Your task to perform on an android device: Search for seafood restaurants on Google Maps Image 0: 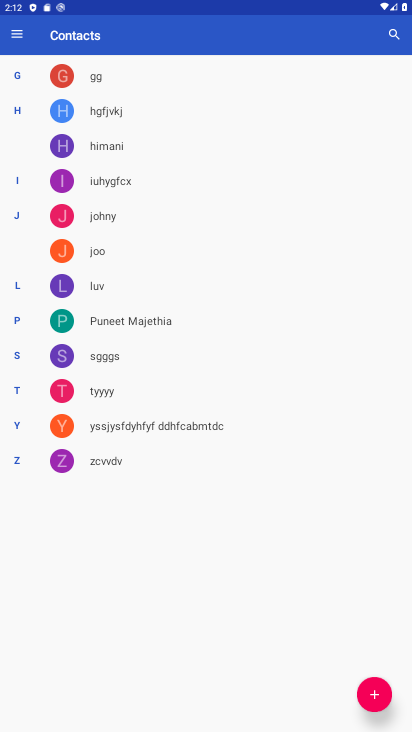
Step 0: press home button
Your task to perform on an android device: Search for seafood restaurants on Google Maps Image 1: 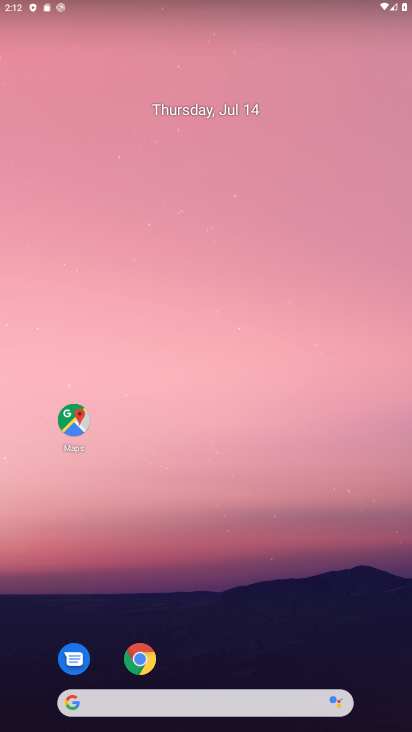
Step 1: click (67, 430)
Your task to perform on an android device: Search for seafood restaurants on Google Maps Image 2: 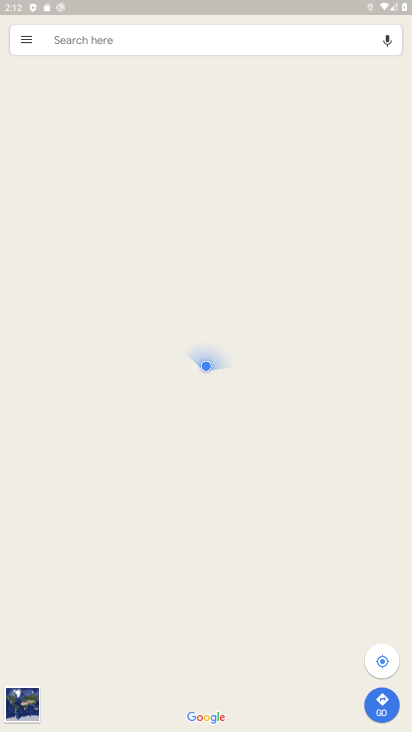
Step 2: click (100, 42)
Your task to perform on an android device: Search for seafood restaurants on Google Maps Image 3: 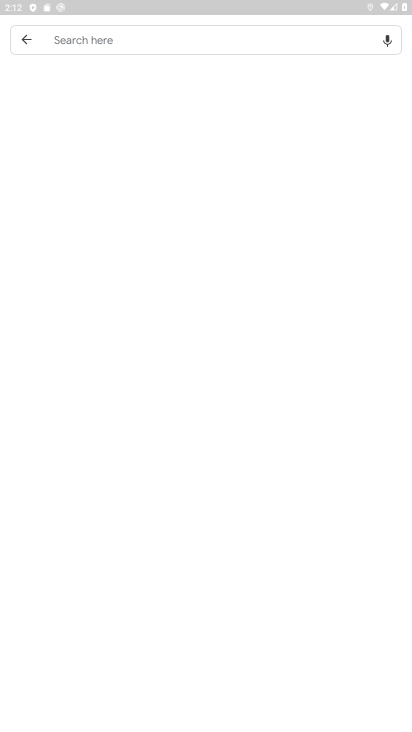
Step 3: click (100, 42)
Your task to perform on an android device: Search for seafood restaurants on Google Maps Image 4: 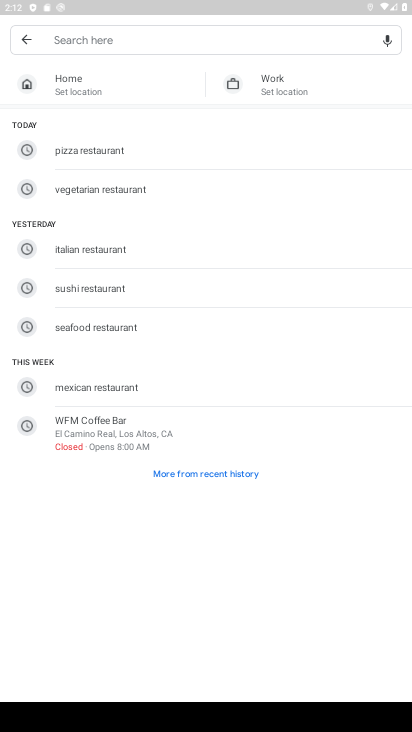
Step 4: click (119, 328)
Your task to perform on an android device: Search for seafood restaurants on Google Maps Image 5: 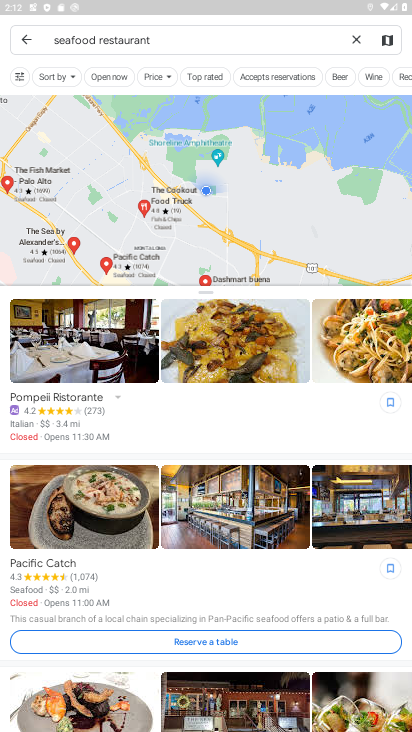
Step 5: task complete